Your task to perform on an android device: choose inbox layout in the gmail app Image 0: 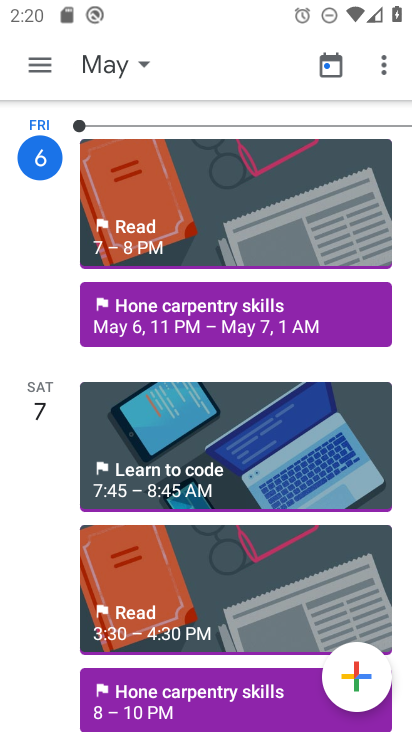
Step 0: press home button
Your task to perform on an android device: choose inbox layout in the gmail app Image 1: 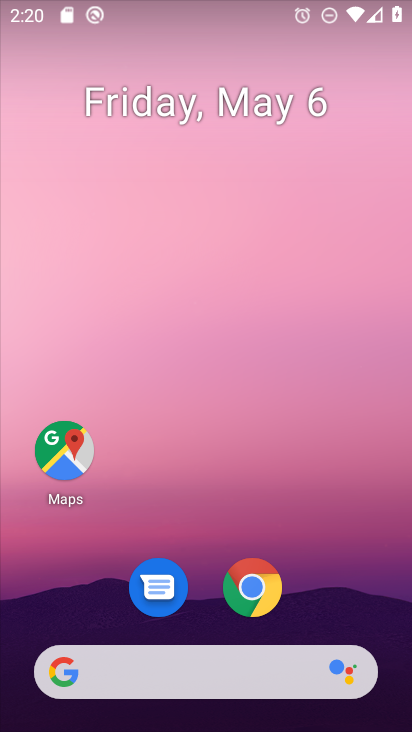
Step 1: drag from (335, 539) to (233, 61)
Your task to perform on an android device: choose inbox layout in the gmail app Image 2: 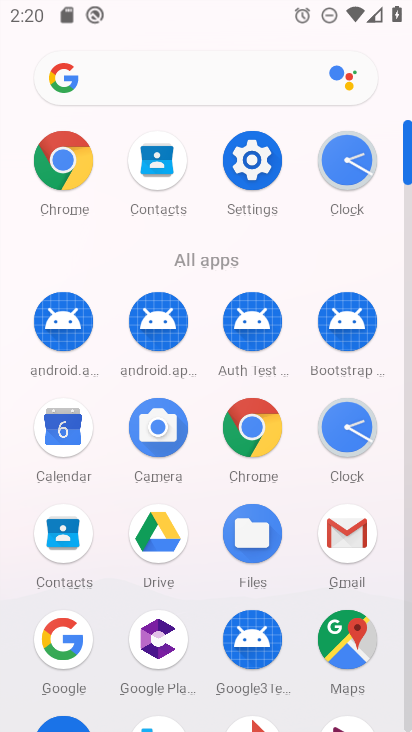
Step 2: click (350, 539)
Your task to perform on an android device: choose inbox layout in the gmail app Image 3: 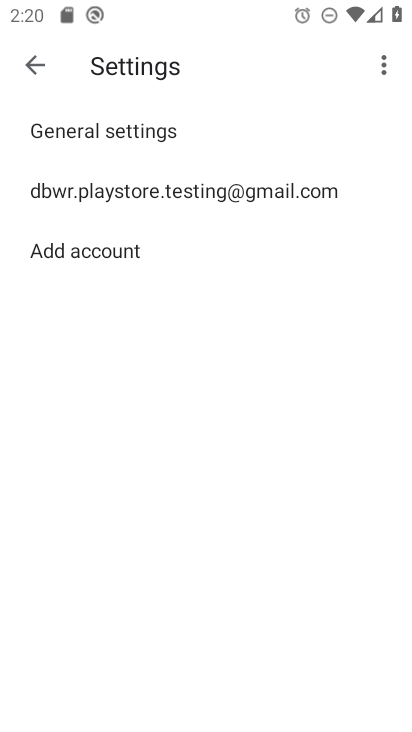
Step 3: click (231, 192)
Your task to perform on an android device: choose inbox layout in the gmail app Image 4: 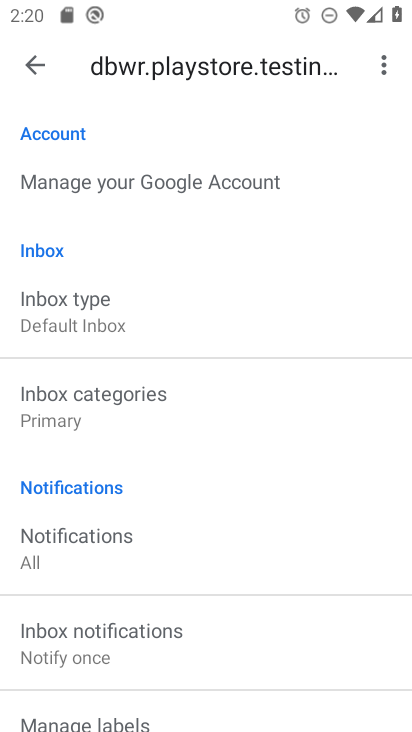
Step 4: click (70, 317)
Your task to perform on an android device: choose inbox layout in the gmail app Image 5: 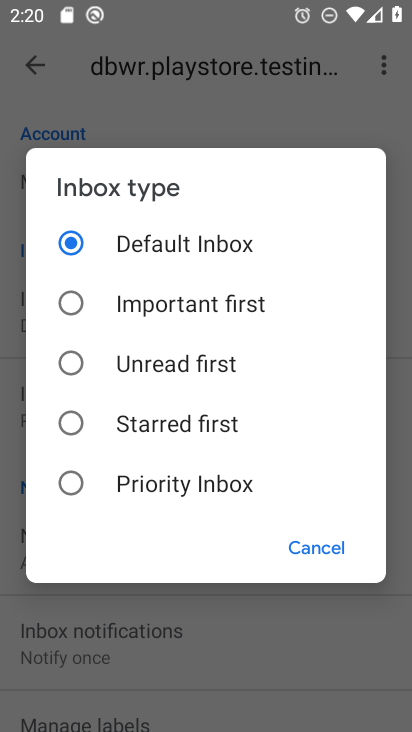
Step 5: click (63, 483)
Your task to perform on an android device: choose inbox layout in the gmail app Image 6: 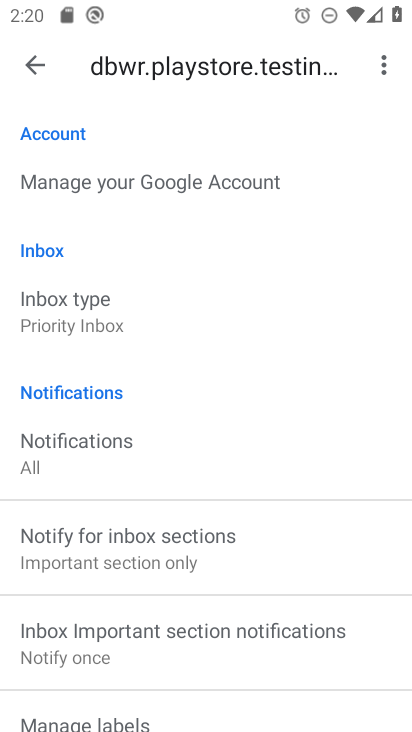
Step 6: task complete